Your task to perform on an android device: check android version Image 0: 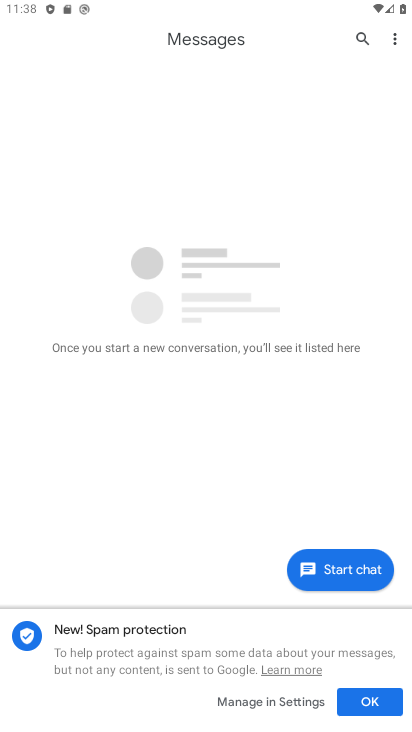
Step 0: press home button
Your task to perform on an android device: check android version Image 1: 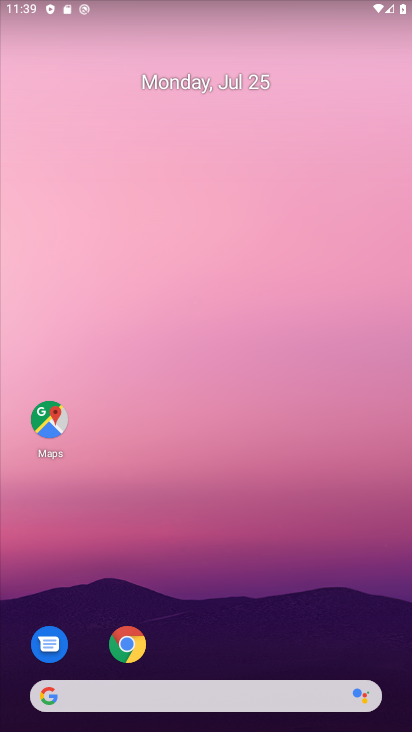
Step 1: drag from (245, 722) to (250, 41)
Your task to perform on an android device: check android version Image 2: 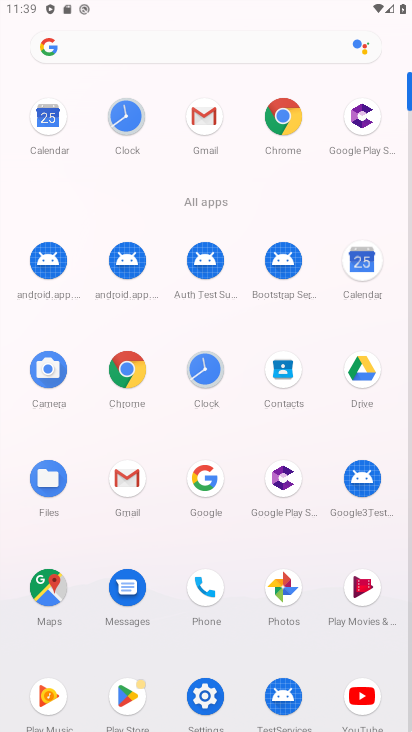
Step 2: click (206, 704)
Your task to perform on an android device: check android version Image 3: 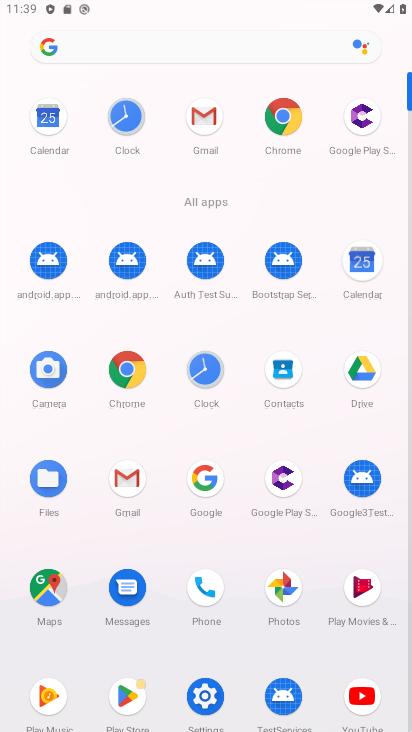
Step 3: click (206, 704)
Your task to perform on an android device: check android version Image 4: 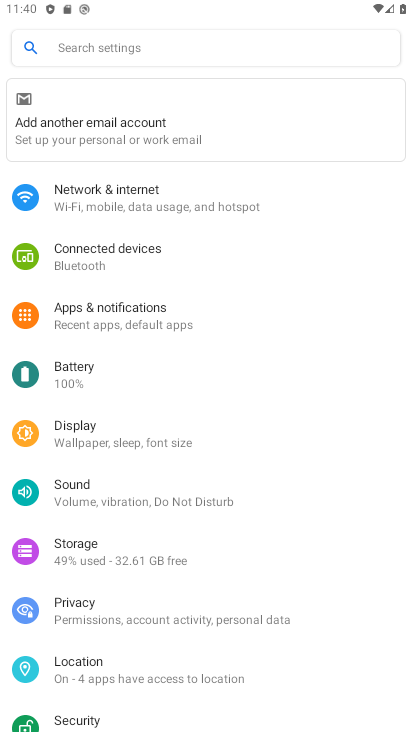
Step 4: drag from (259, 535) to (259, 16)
Your task to perform on an android device: check android version Image 5: 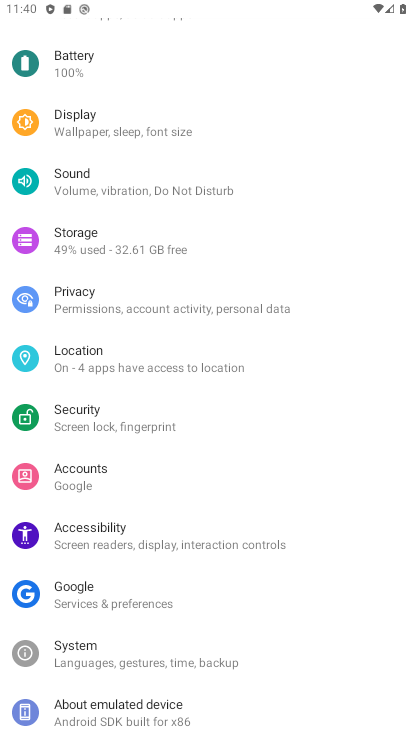
Step 5: drag from (164, 697) to (106, 12)
Your task to perform on an android device: check android version Image 6: 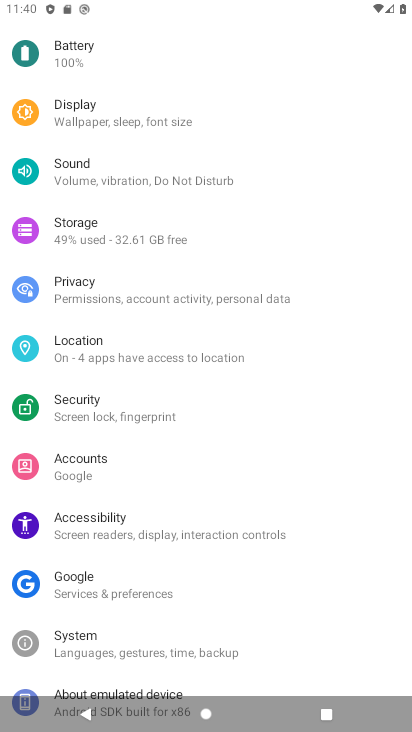
Step 6: click (164, 689)
Your task to perform on an android device: check android version Image 7: 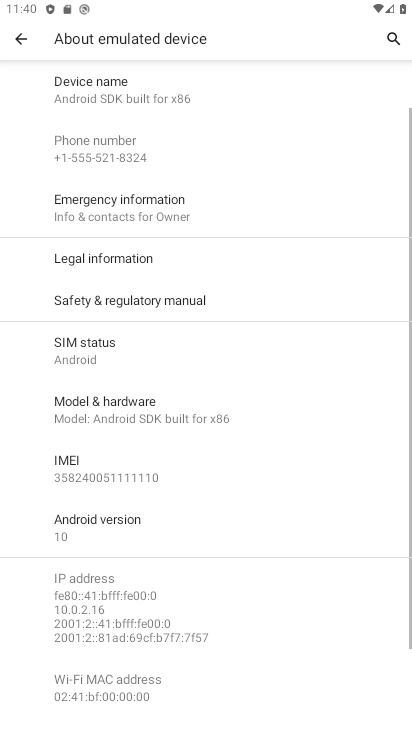
Step 7: task complete